Your task to perform on an android device: turn off improve location accuracy Image 0: 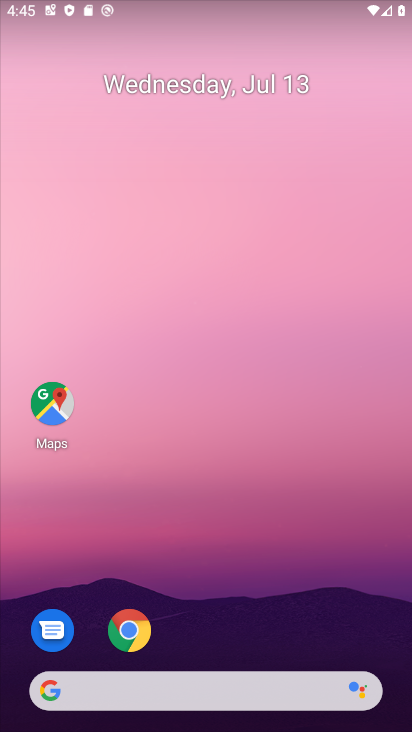
Step 0: drag from (222, 638) to (288, 111)
Your task to perform on an android device: turn off improve location accuracy Image 1: 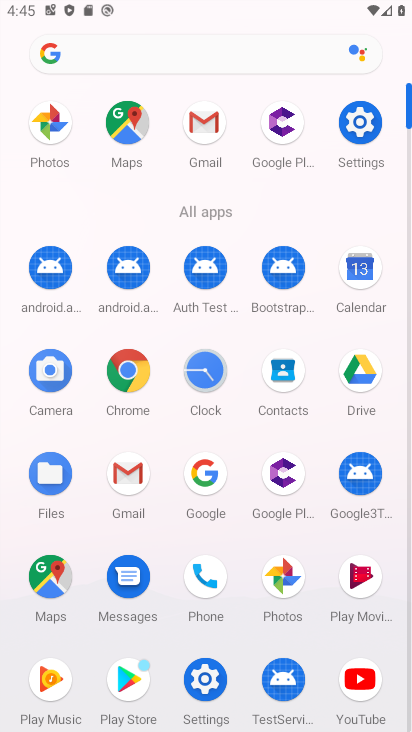
Step 1: click (193, 669)
Your task to perform on an android device: turn off improve location accuracy Image 2: 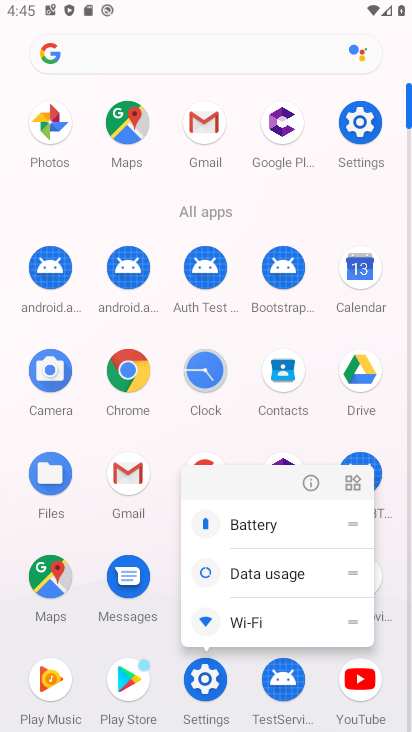
Step 2: click (208, 680)
Your task to perform on an android device: turn off improve location accuracy Image 3: 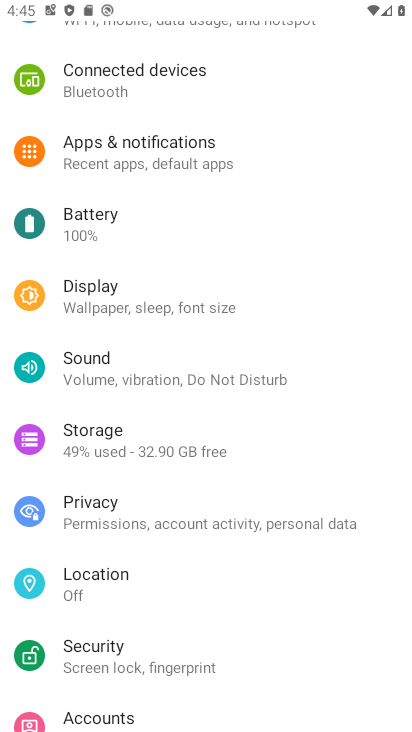
Step 3: click (121, 595)
Your task to perform on an android device: turn off improve location accuracy Image 4: 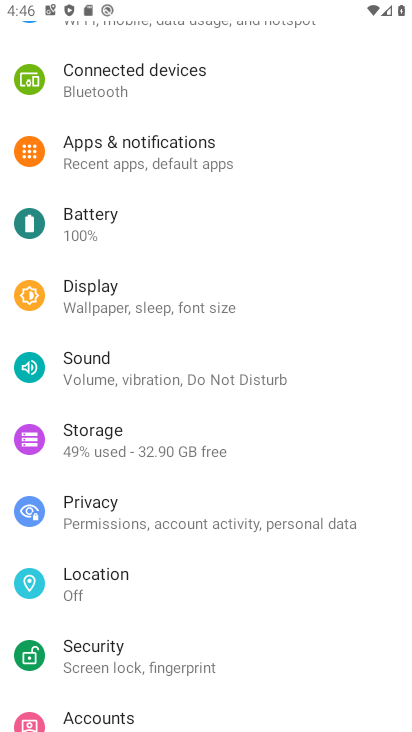
Step 4: click (136, 582)
Your task to perform on an android device: turn off improve location accuracy Image 5: 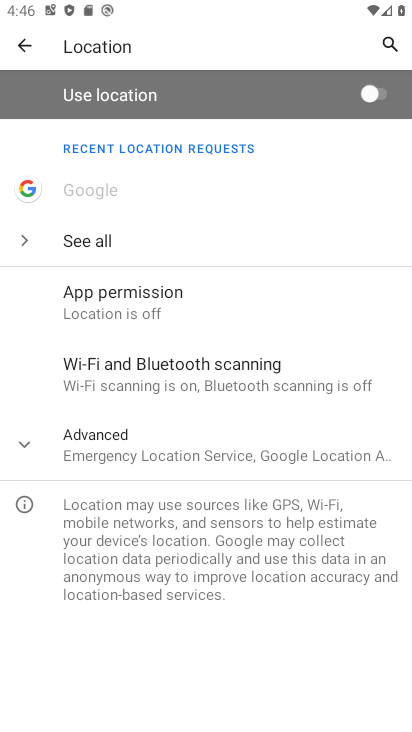
Step 5: click (208, 472)
Your task to perform on an android device: turn off improve location accuracy Image 6: 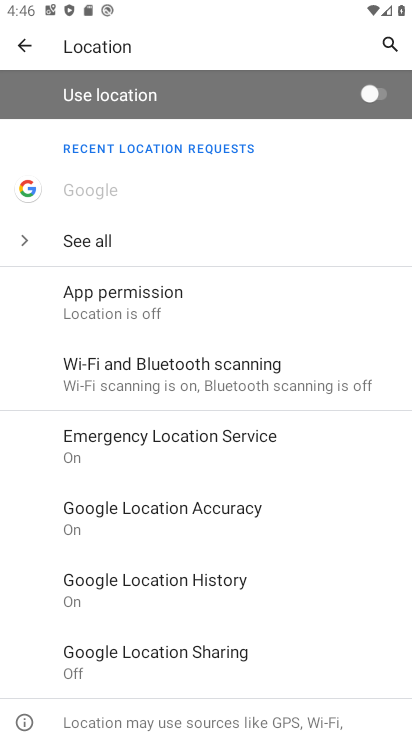
Step 6: click (207, 525)
Your task to perform on an android device: turn off improve location accuracy Image 7: 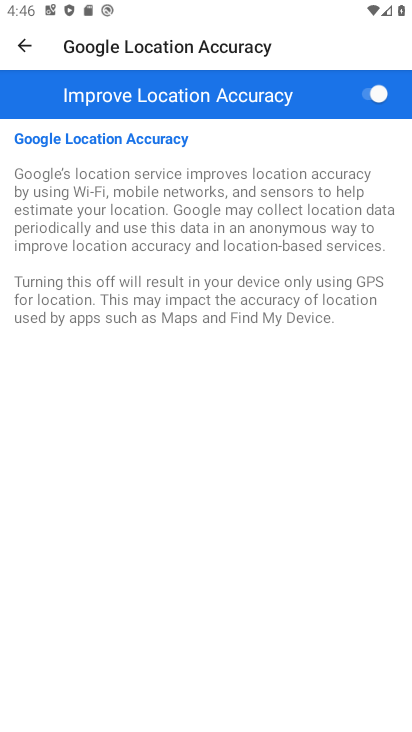
Step 7: click (367, 90)
Your task to perform on an android device: turn off improve location accuracy Image 8: 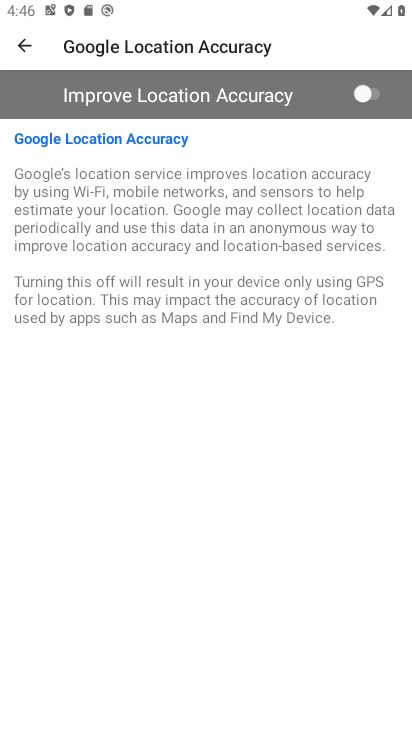
Step 8: task complete